Your task to perform on an android device: Go to Wikipedia Image 0: 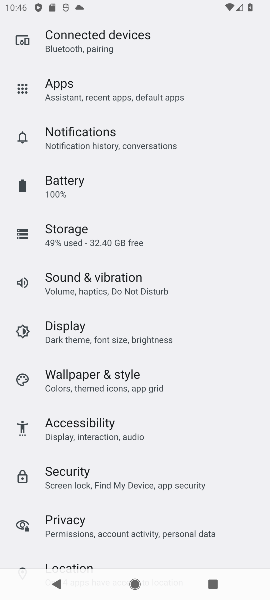
Step 0: press home button
Your task to perform on an android device: Go to Wikipedia Image 1: 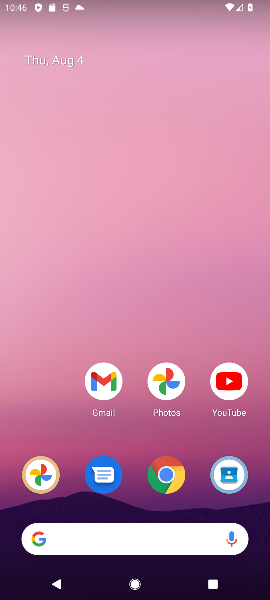
Step 1: click (173, 484)
Your task to perform on an android device: Go to Wikipedia Image 2: 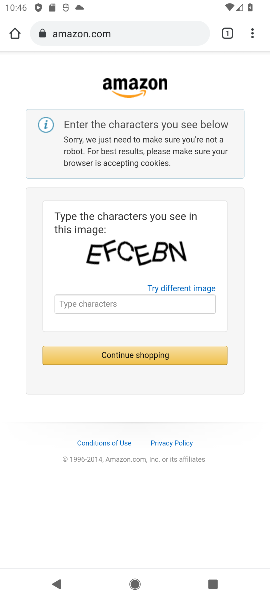
Step 2: click (223, 30)
Your task to perform on an android device: Go to Wikipedia Image 3: 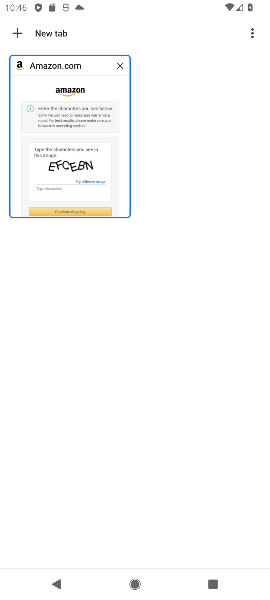
Step 3: click (117, 62)
Your task to perform on an android device: Go to Wikipedia Image 4: 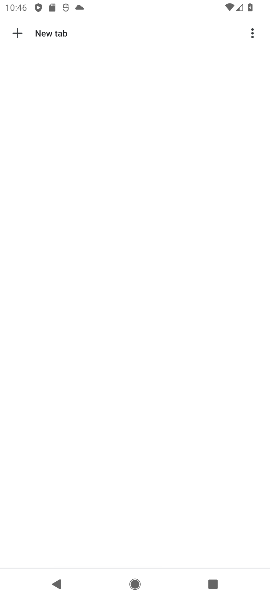
Step 4: click (14, 30)
Your task to perform on an android device: Go to Wikipedia Image 5: 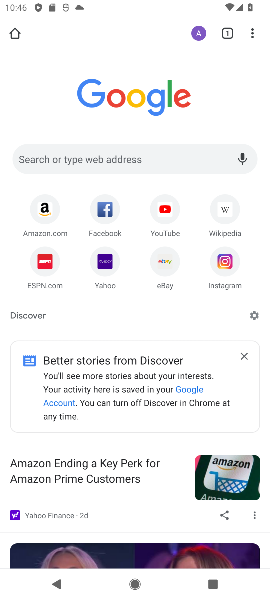
Step 5: click (225, 213)
Your task to perform on an android device: Go to Wikipedia Image 6: 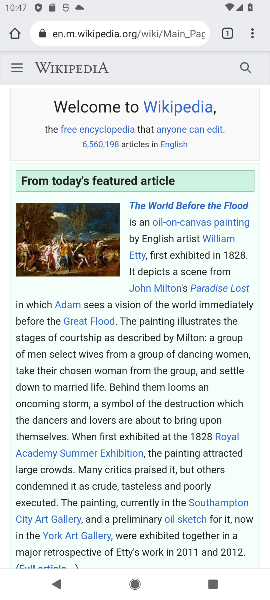
Step 6: task complete